Your task to perform on an android device: Search for Mexican restaurants on Maps Image 0: 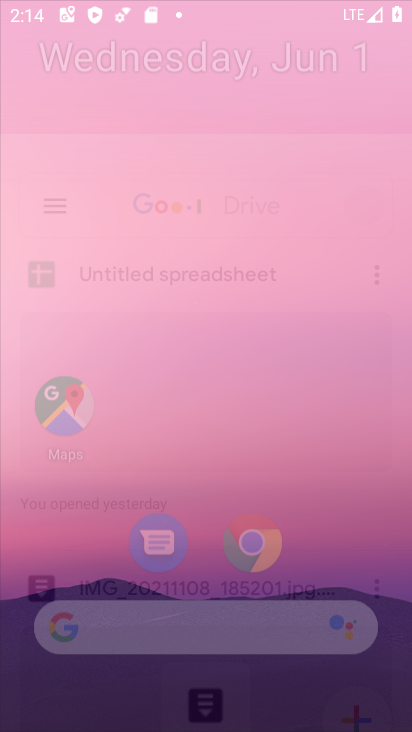
Step 0: click (177, 107)
Your task to perform on an android device: Search for Mexican restaurants on Maps Image 1: 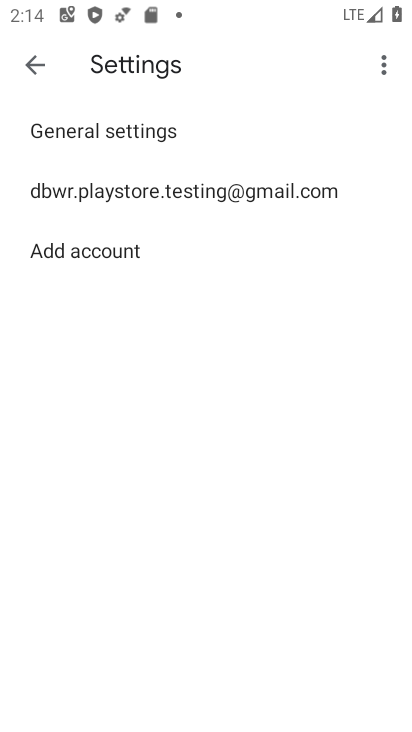
Step 1: press home button
Your task to perform on an android device: Search for Mexican restaurants on Maps Image 2: 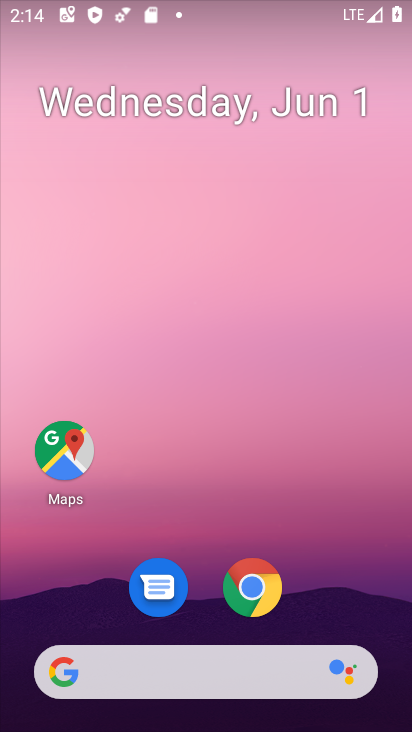
Step 2: drag from (193, 673) to (170, 63)
Your task to perform on an android device: Search for Mexican restaurants on Maps Image 3: 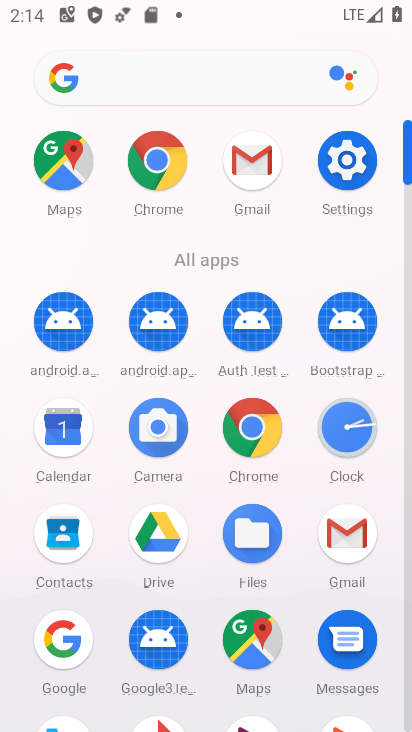
Step 3: click (67, 154)
Your task to perform on an android device: Search for Mexican restaurants on Maps Image 4: 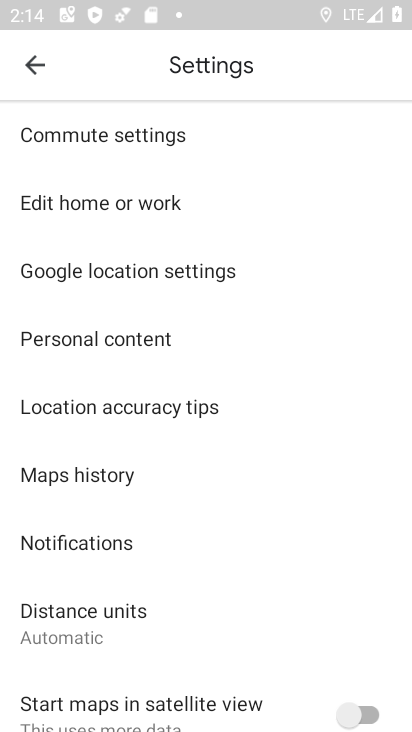
Step 4: click (32, 47)
Your task to perform on an android device: Search for Mexican restaurants on Maps Image 5: 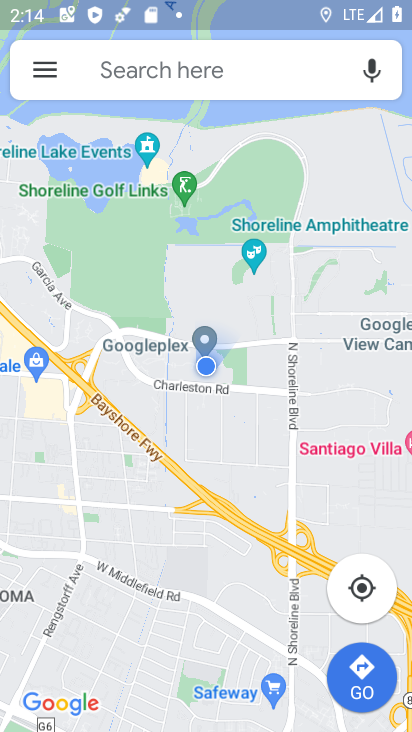
Step 5: click (203, 50)
Your task to perform on an android device: Search for Mexican restaurants on Maps Image 6: 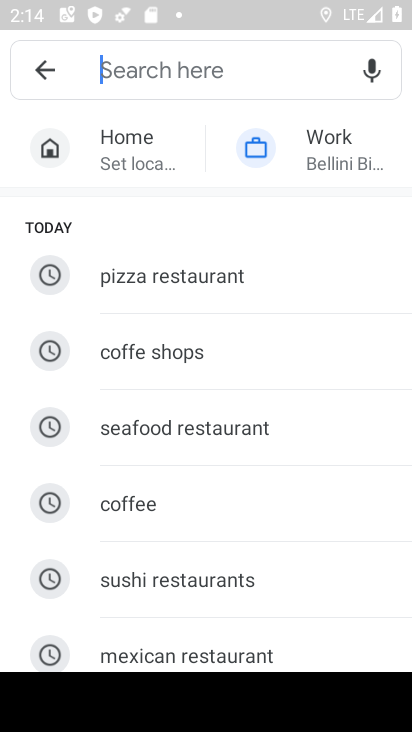
Step 6: click (198, 649)
Your task to perform on an android device: Search for Mexican restaurants on Maps Image 7: 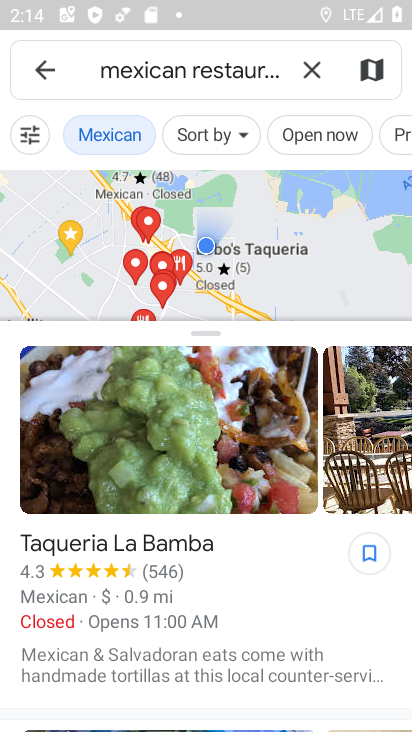
Step 7: task complete